Your task to perform on an android device: Open the calendar app, open the side menu, and click the "Day" option Image 0: 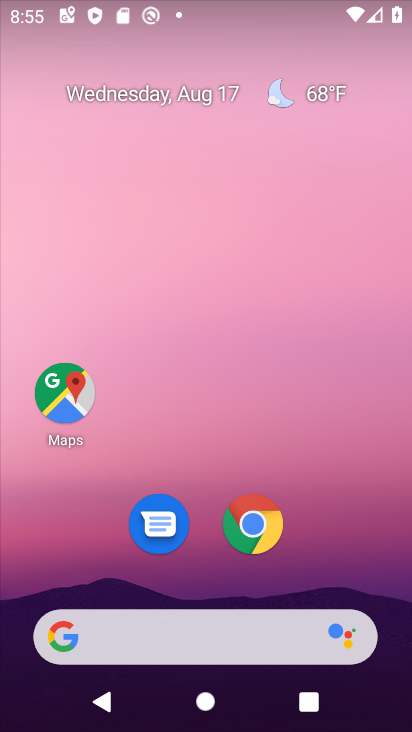
Step 0: drag from (325, 536) to (306, 0)
Your task to perform on an android device: Open the calendar app, open the side menu, and click the "Day" option Image 1: 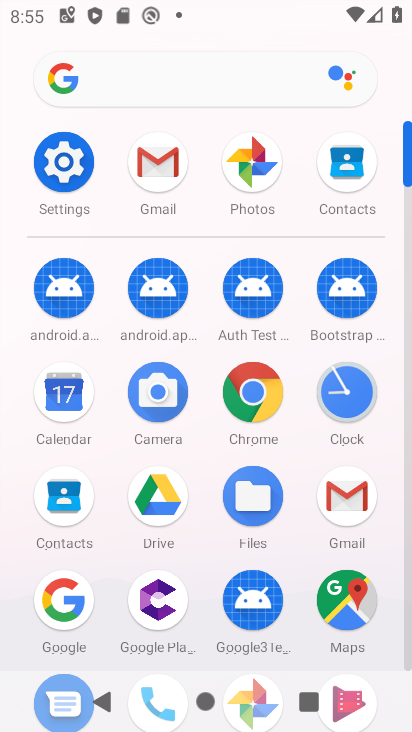
Step 1: click (69, 397)
Your task to perform on an android device: Open the calendar app, open the side menu, and click the "Day" option Image 2: 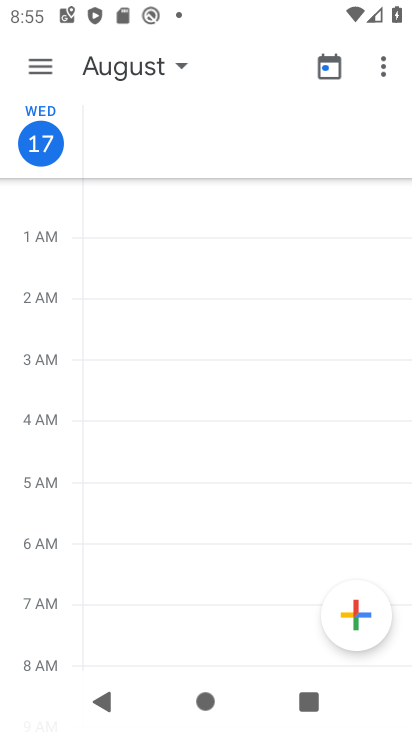
Step 2: click (37, 62)
Your task to perform on an android device: Open the calendar app, open the side menu, and click the "Day" option Image 3: 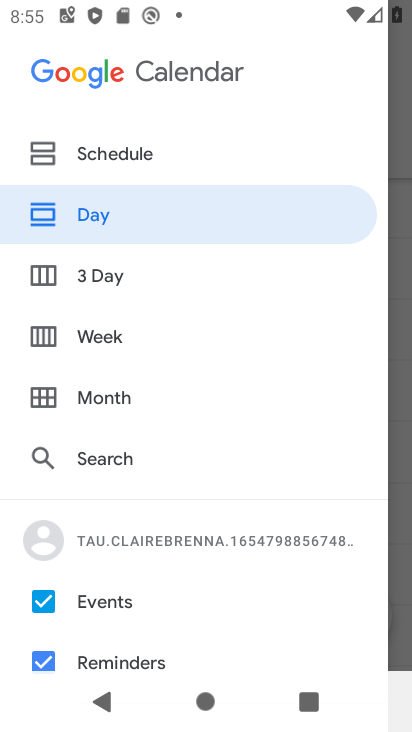
Step 3: click (106, 213)
Your task to perform on an android device: Open the calendar app, open the side menu, and click the "Day" option Image 4: 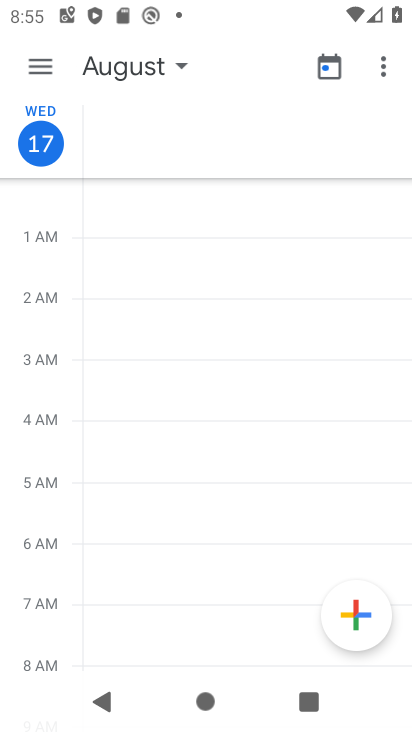
Step 4: task complete